Your task to perform on an android device: open chrome privacy settings Image 0: 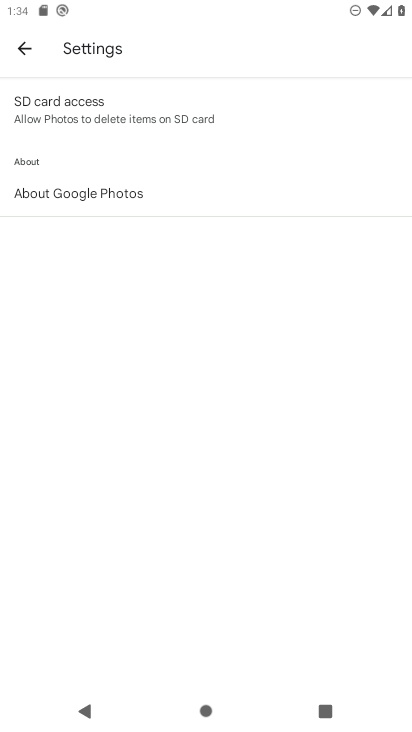
Step 0: press home button
Your task to perform on an android device: open chrome privacy settings Image 1: 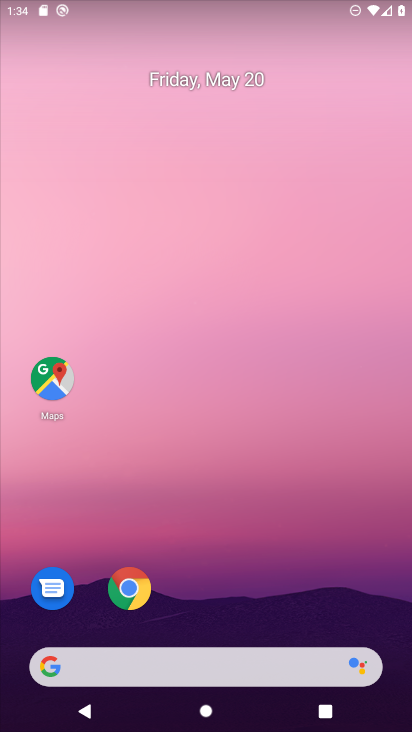
Step 1: click (132, 585)
Your task to perform on an android device: open chrome privacy settings Image 2: 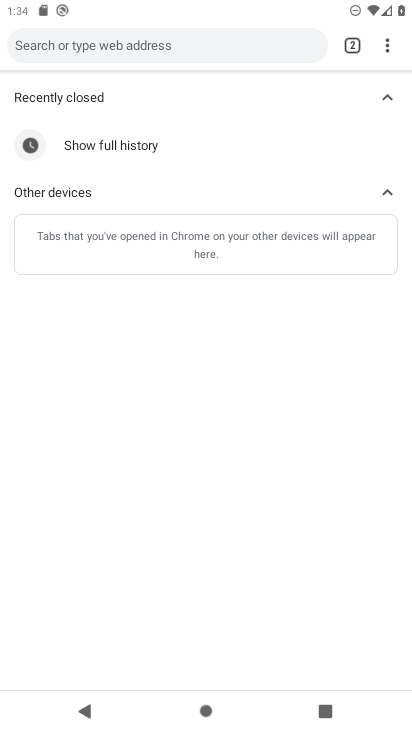
Step 2: click (386, 47)
Your task to perform on an android device: open chrome privacy settings Image 3: 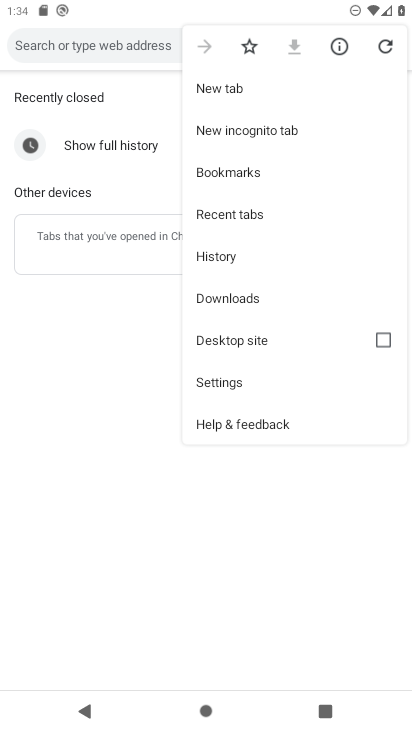
Step 3: click (226, 384)
Your task to perform on an android device: open chrome privacy settings Image 4: 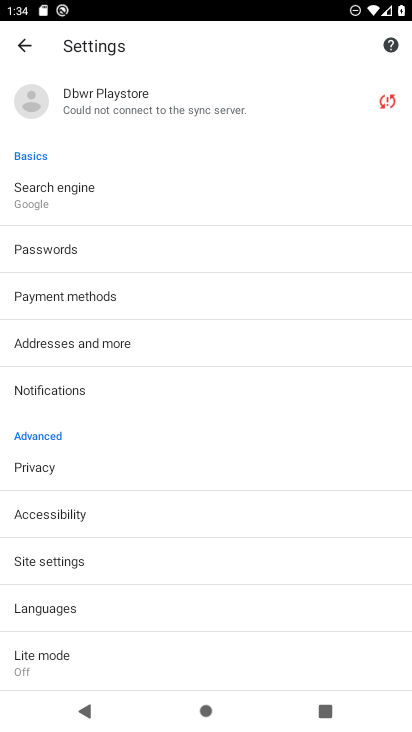
Step 4: click (45, 465)
Your task to perform on an android device: open chrome privacy settings Image 5: 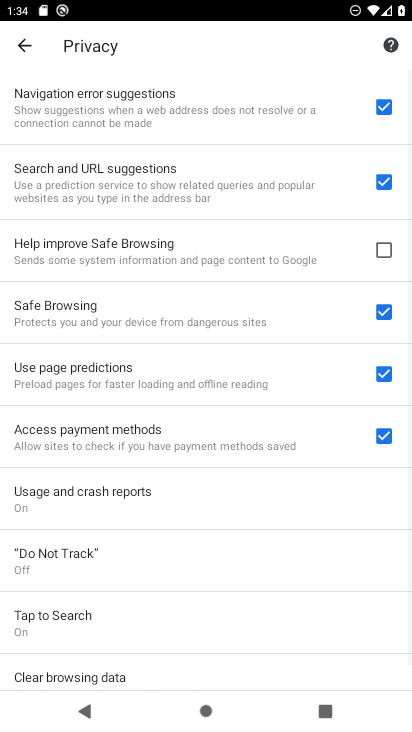
Step 5: task complete